Your task to perform on an android device: open app "LinkedIn" (install if not already installed), go to login, and select forgot password Image 0: 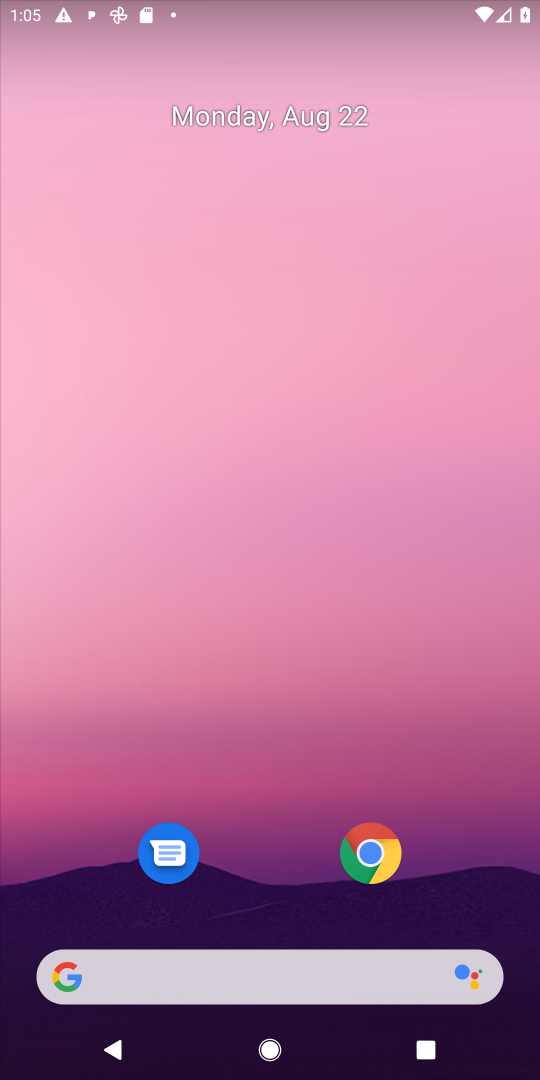
Step 0: drag from (312, 808) to (312, 386)
Your task to perform on an android device: open app "LinkedIn" (install if not already installed), go to login, and select forgot password Image 1: 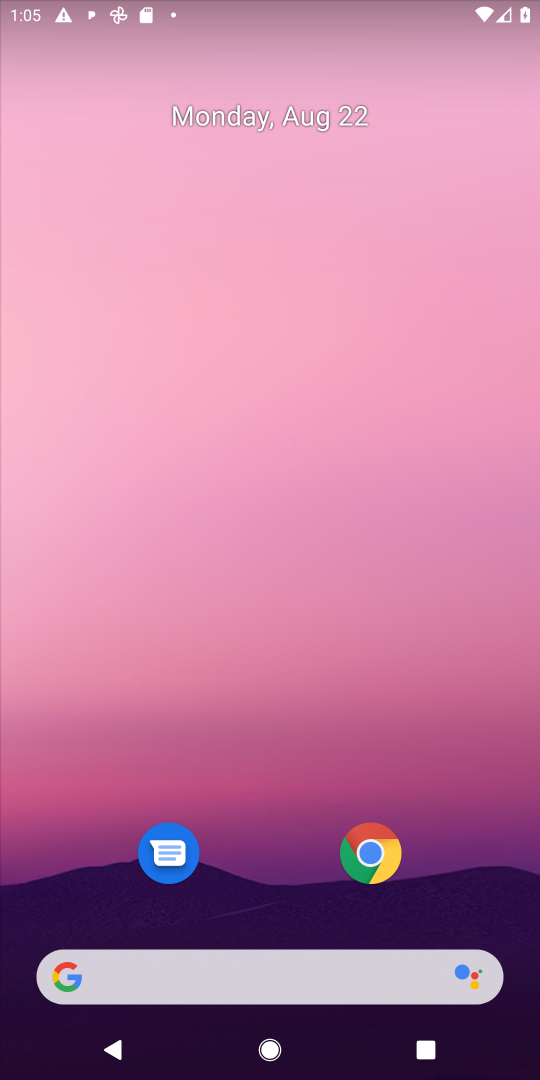
Step 1: drag from (223, 918) to (259, 411)
Your task to perform on an android device: open app "LinkedIn" (install if not already installed), go to login, and select forgot password Image 2: 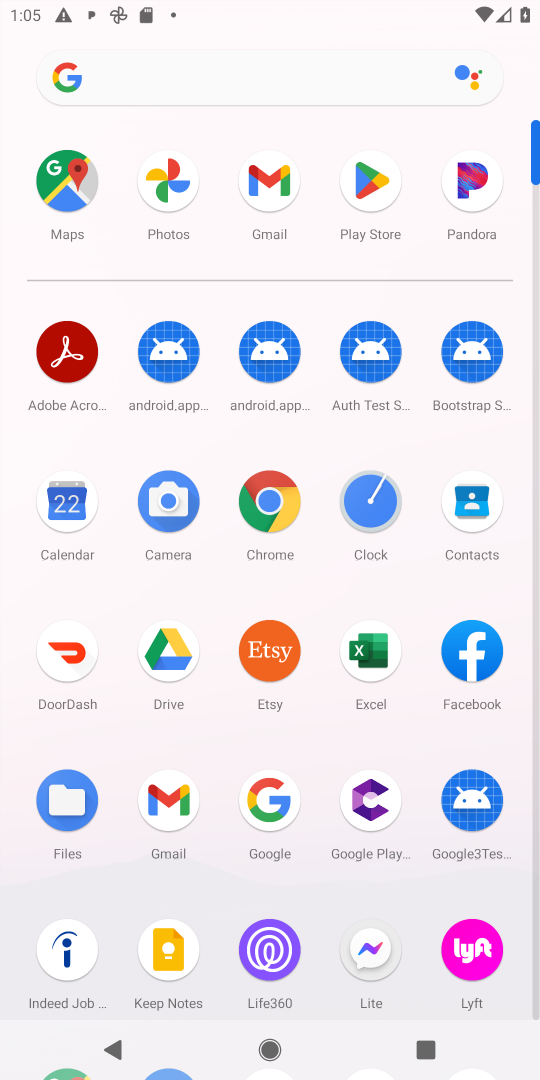
Step 2: click (352, 178)
Your task to perform on an android device: open app "LinkedIn" (install if not already installed), go to login, and select forgot password Image 3: 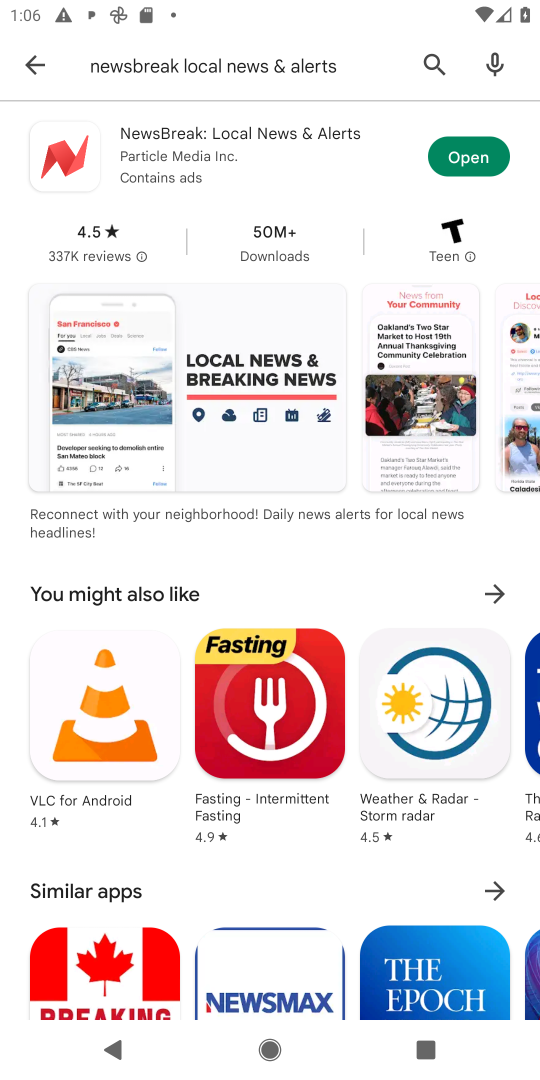
Step 3: click (421, 63)
Your task to perform on an android device: open app "LinkedIn" (install if not already installed), go to login, and select forgot password Image 4: 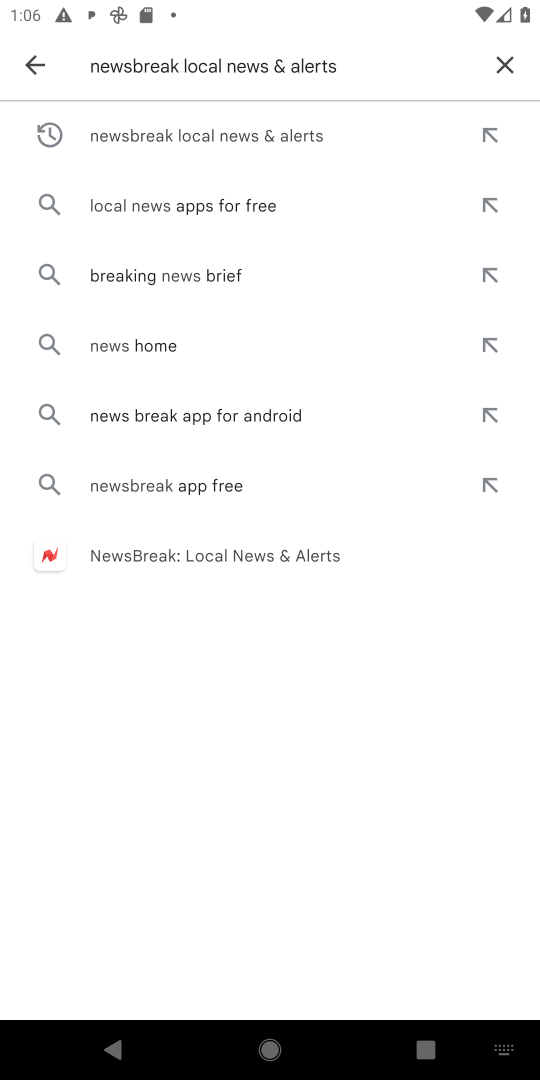
Step 4: click (515, 72)
Your task to perform on an android device: open app "LinkedIn" (install if not already installed), go to login, and select forgot password Image 5: 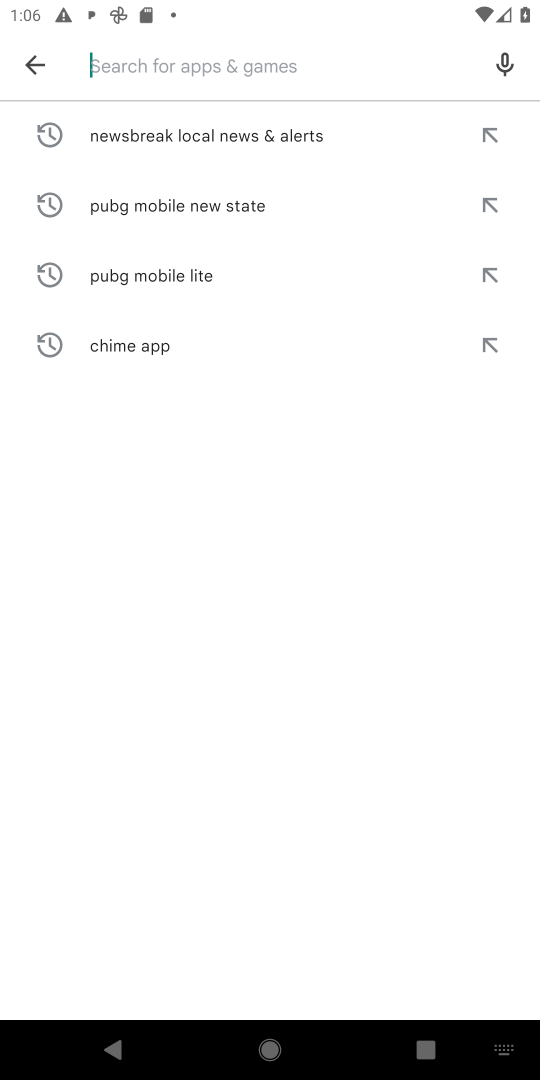
Step 5: click (333, 56)
Your task to perform on an android device: open app "LinkedIn" (install if not already installed), go to login, and select forgot password Image 6: 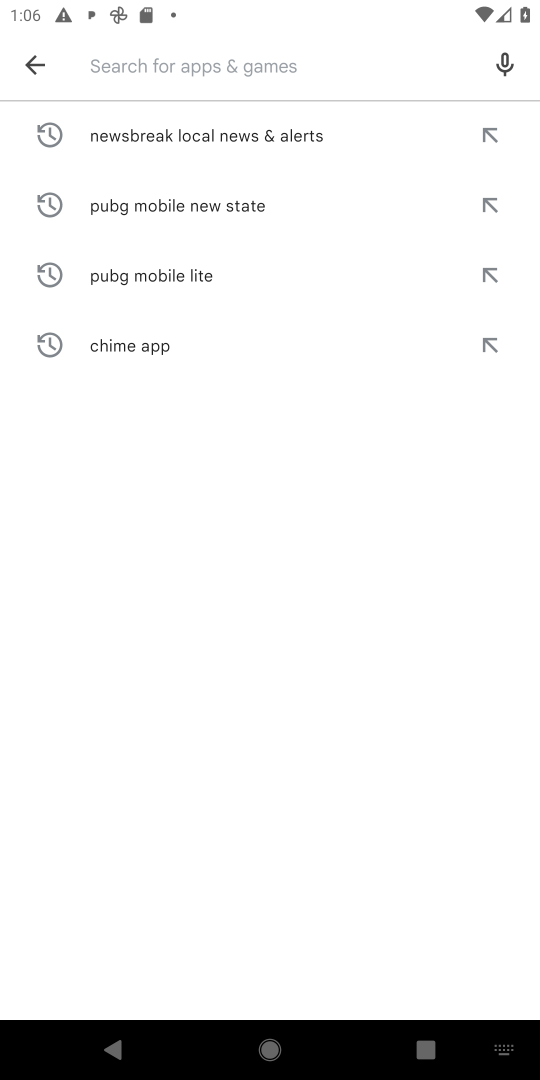
Step 6: type "LinkedIn "
Your task to perform on an android device: open app "LinkedIn" (install if not already installed), go to login, and select forgot password Image 7: 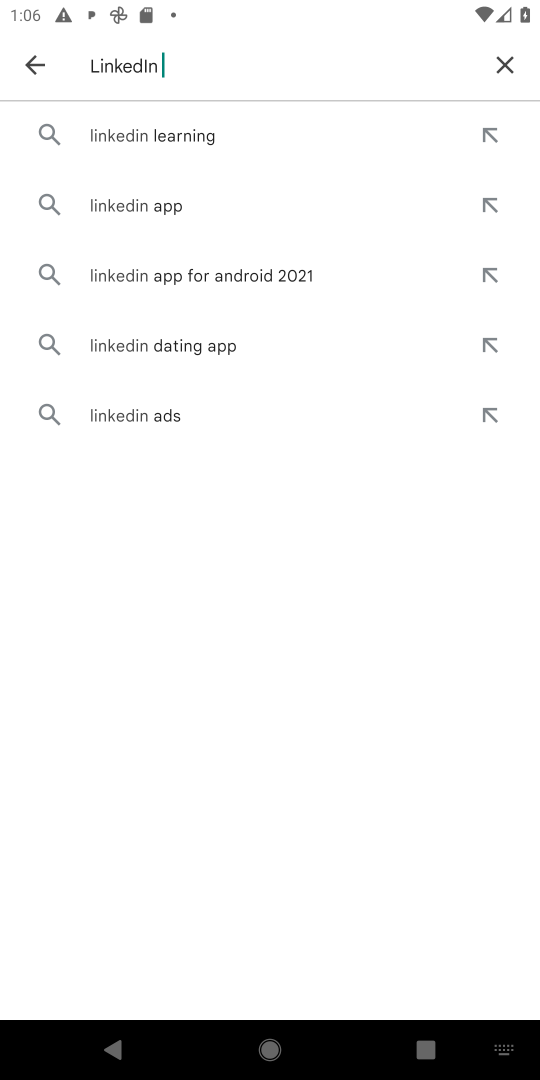
Step 7: click (182, 219)
Your task to perform on an android device: open app "LinkedIn" (install if not already installed), go to login, and select forgot password Image 8: 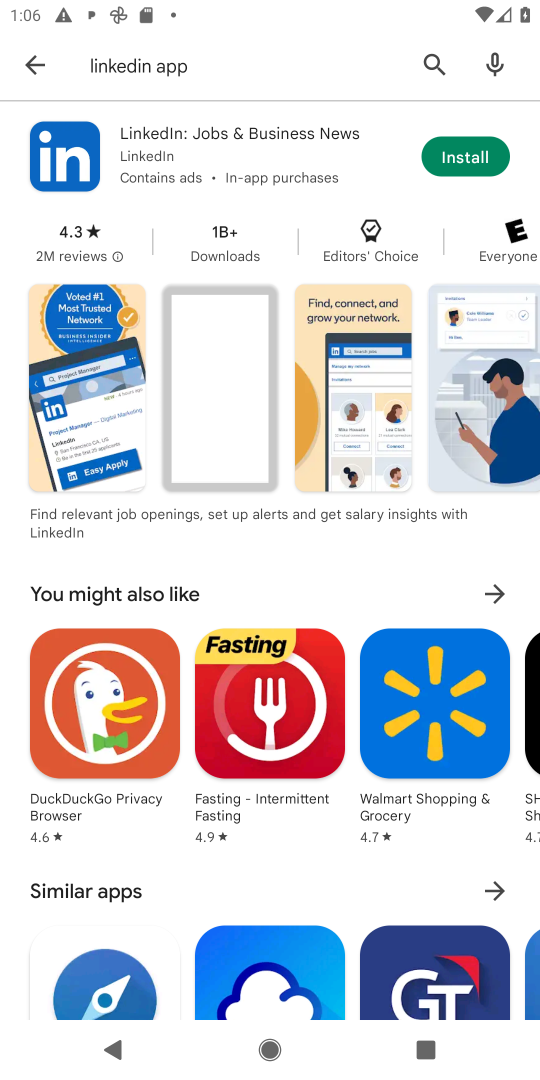
Step 8: click (458, 168)
Your task to perform on an android device: open app "LinkedIn" (install if not already installed), go to login, and select forgot password Image 9: 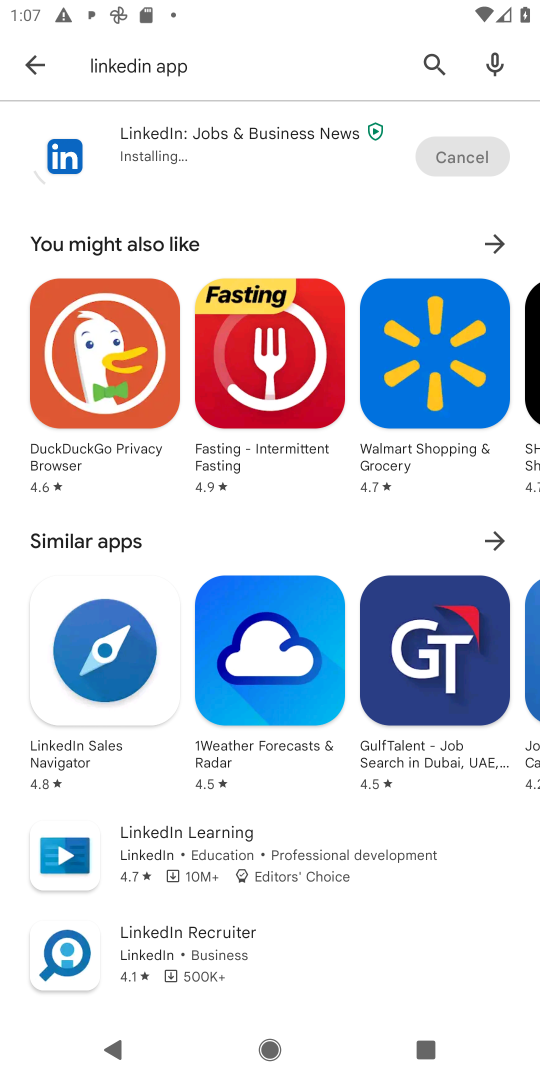
Step 9: task complete